Your task to perform on an android device: star an email in the gmail app Image 0: 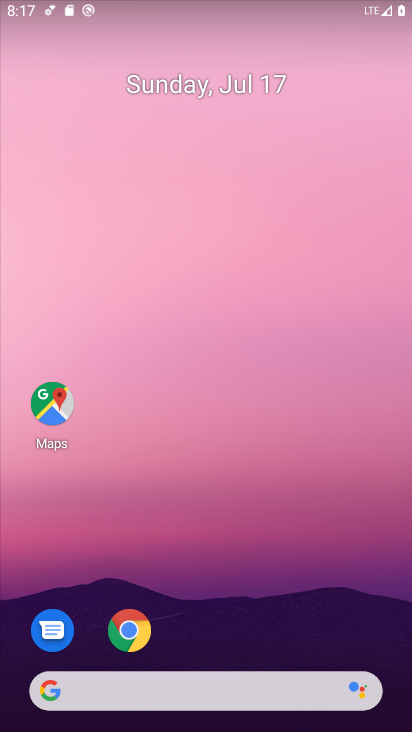
Step 0: drag from (218, 633) to (217, 106)
Your task to perform on an android device: star an email in the gmail app Image 1: 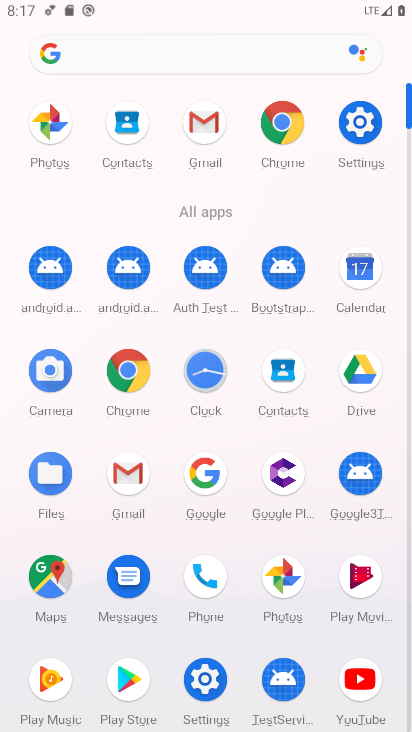
Step 1: click (119, 485)
Your task to perform on an android device: star an email in the gmail app Image 2: 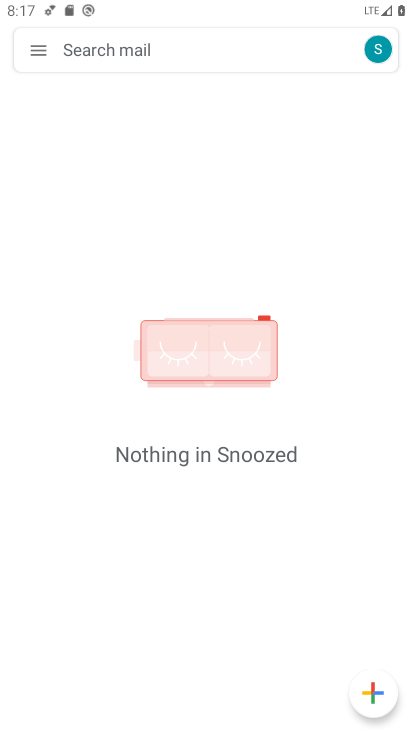
Step 2: click (43, 51)
Your task to perform on an android device: star an email in the gmail app Image 3: 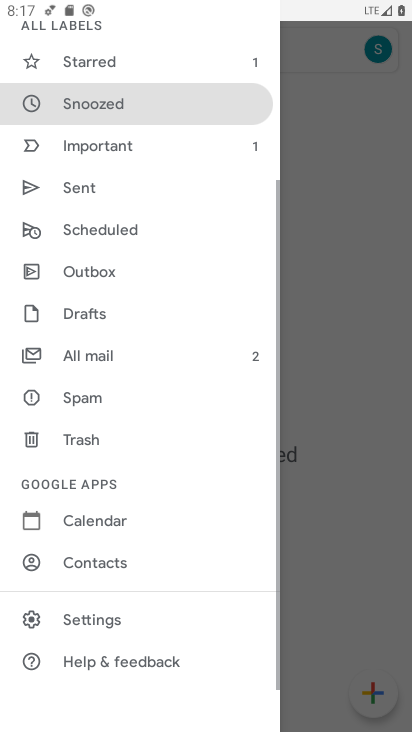
Step 3: drag from (90, 176) to (24, 686)
Your task to perform on an android device: star an email in the gmail app Image 4: 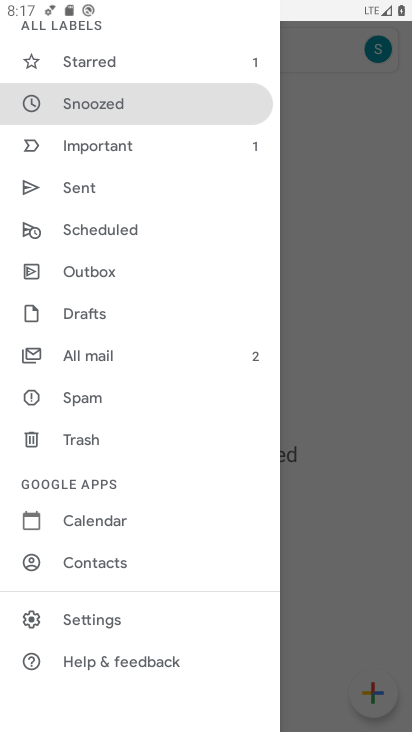
Step 4: drag from (140, 140) to (107, 573)
Your task to perform on an android device: star an email in the gmail app Image 5: 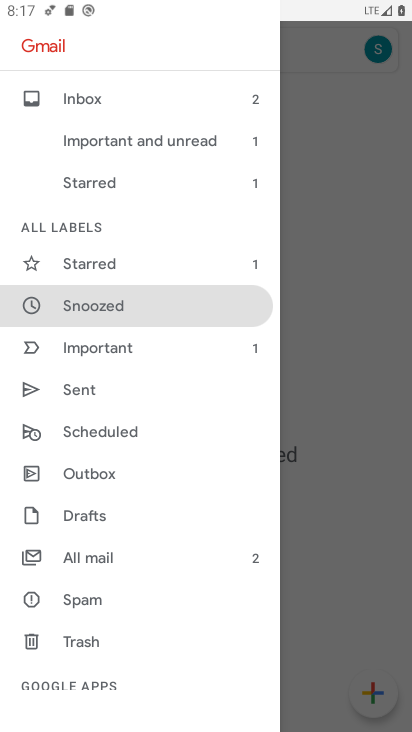
Step 5: click (103, 89)
Your task to perform on an android device: star an email in the gmail app Image 6: 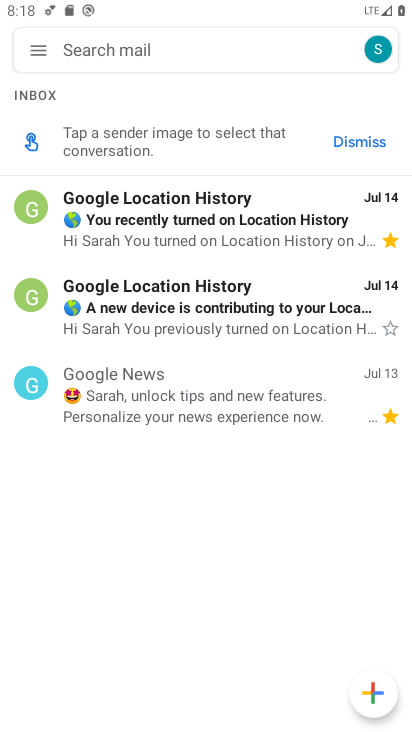
Step 6: click (390, 330)
Your task to perform on an android device: star an email in the gmail app Image 7: 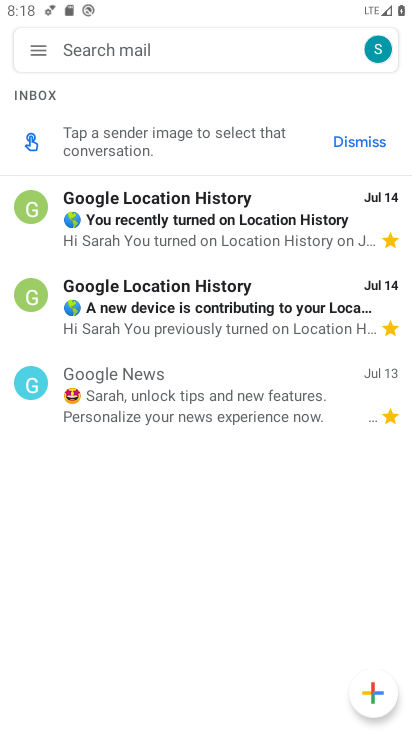
Step 7: task complete